Your task to perform on an android device: open app "Walmart Shopping & Grocery" Image 0: 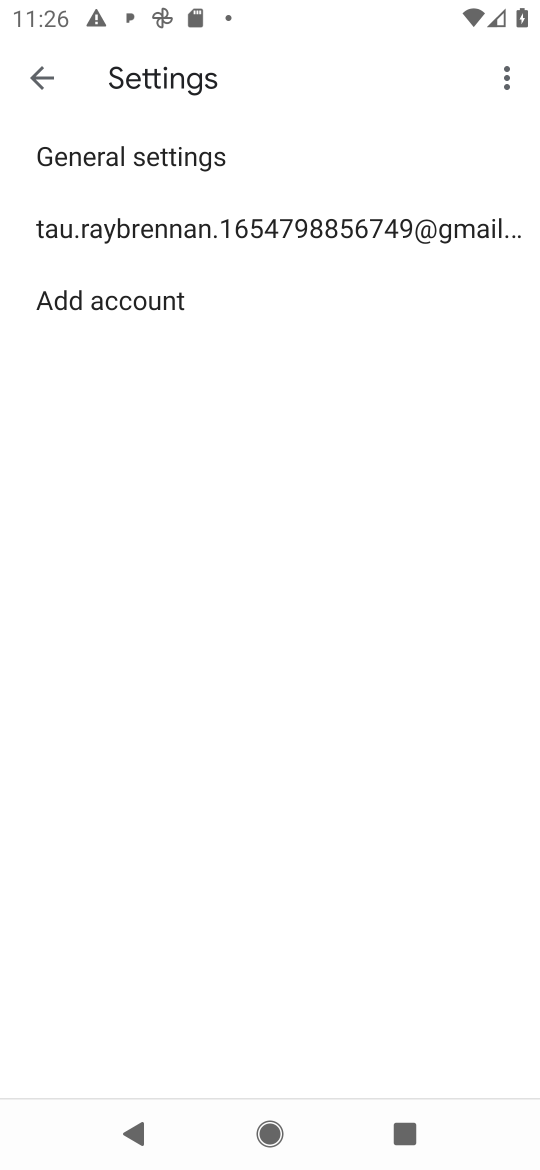
Step 0: press home button
Your task to perform on an android device: open app "Walmart Shopping & Grocery" Image 1: 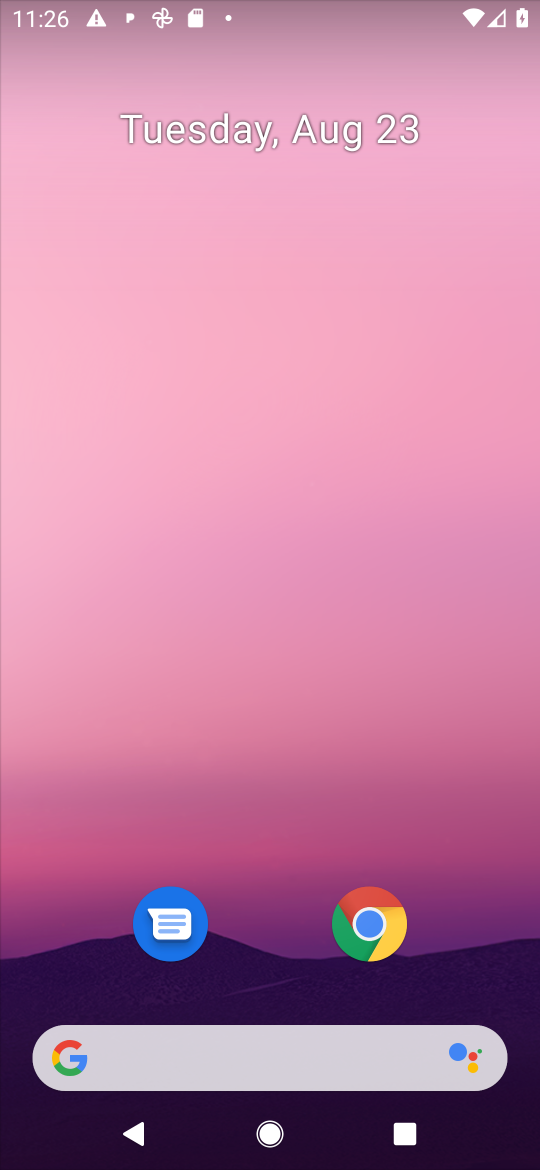
Step 1: drag from (478, 965) to (476, 144)
Your task to perform on an android device: open app "Walmart Shopping & Grocery" Image 2: 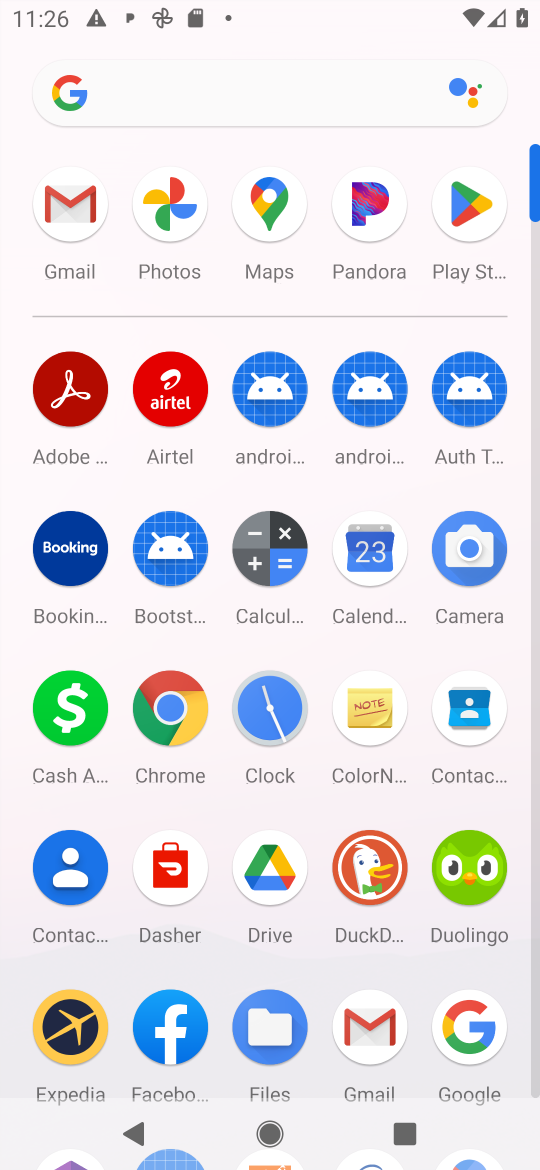
Step 2: click (472, 202)
Your task to perform on an android device: open app "Walmart Shopping & Grocery" Image 3: 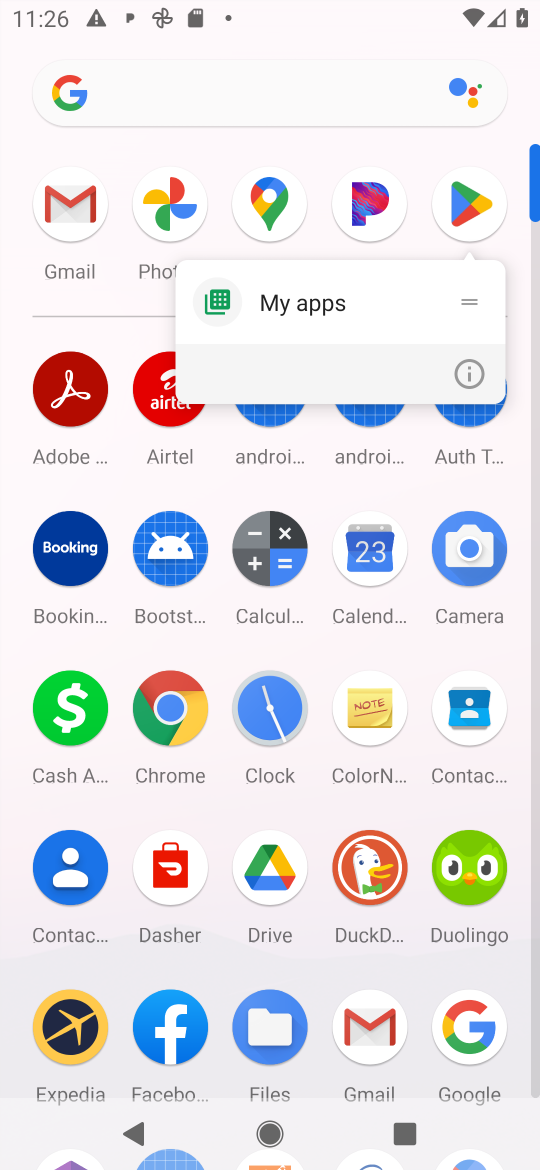
Step 3: click (479, 213)
Your task to perform on an android device: open app "Walmart Shopping & Grocery" Image 4: 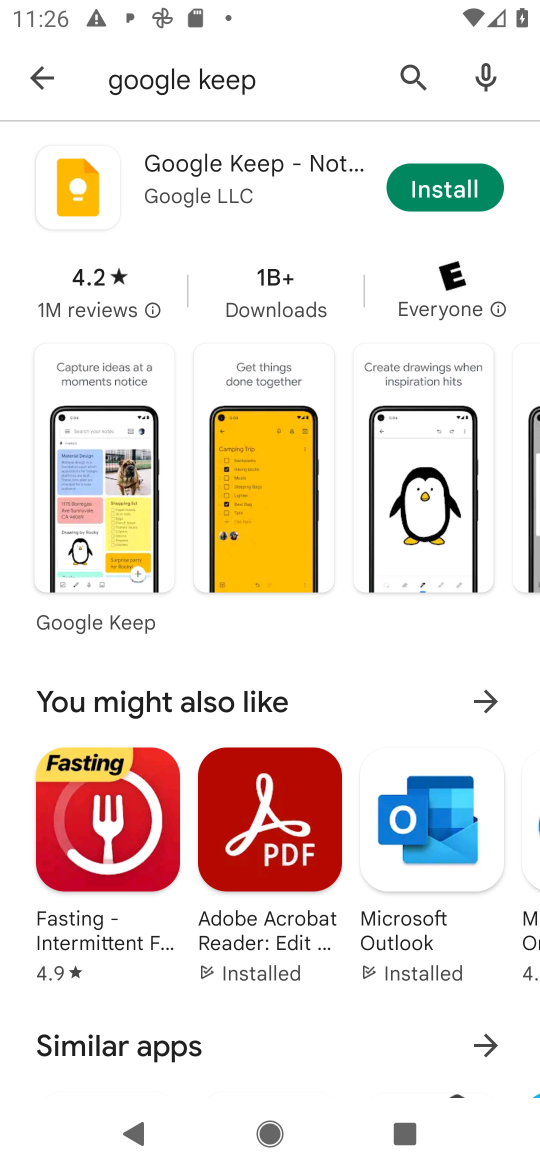
Step 4: press back button
Your task to perform on an android device: open app "Walmart Shopping & Grocery" Image 5: 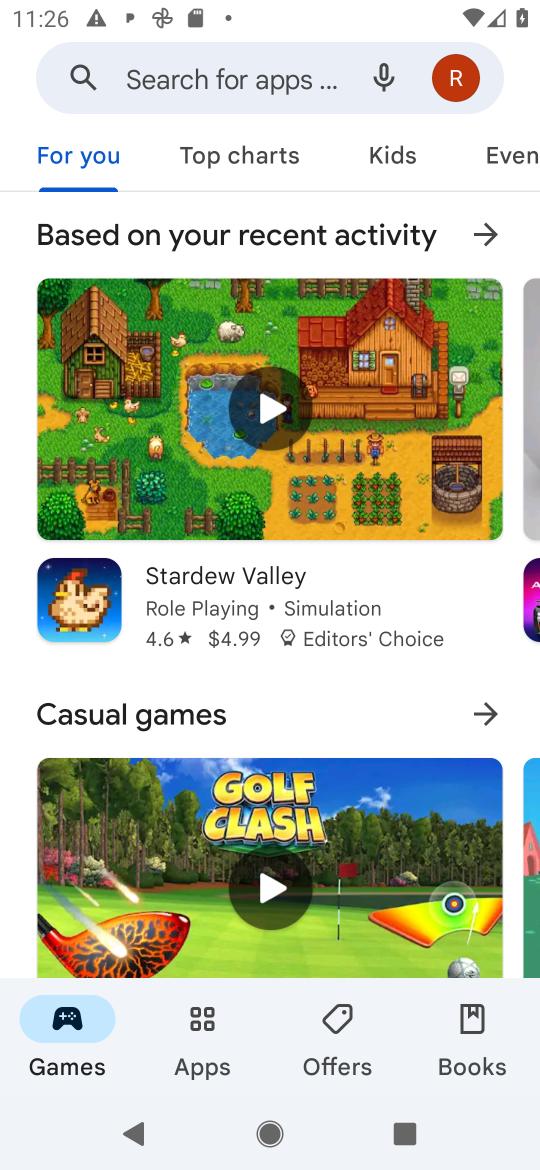
Step 5: click (249, 83)
Your task to perform on an android device: open app "Walmart Shopping & Grocery" Image 6: 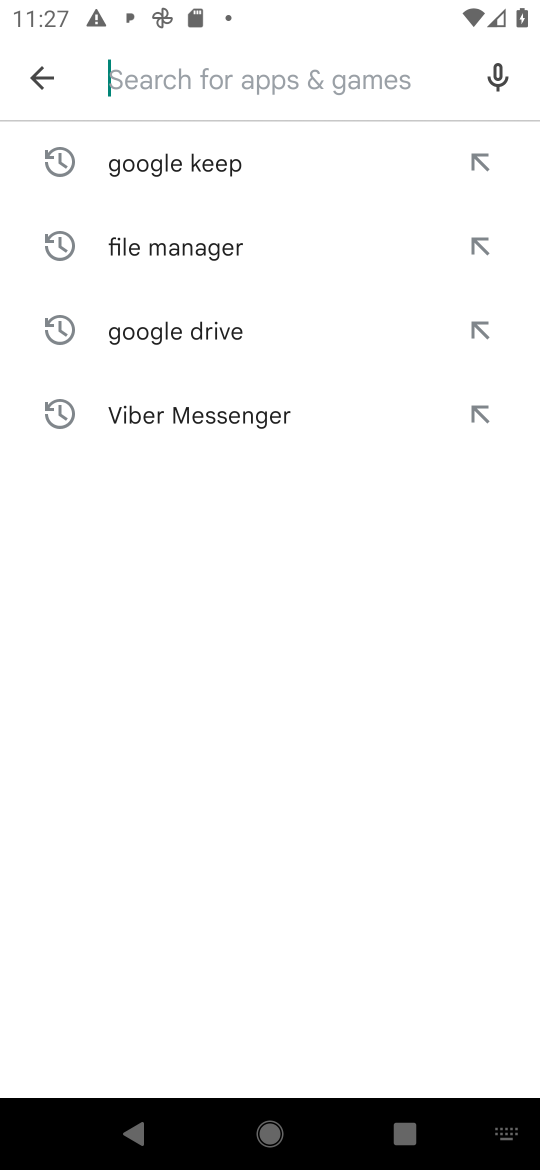
Step 6: type "Walmart Shopping & Grocery"
Your task to perform on an android device: open app "Walmart Shopping & Grocery" Image 7: 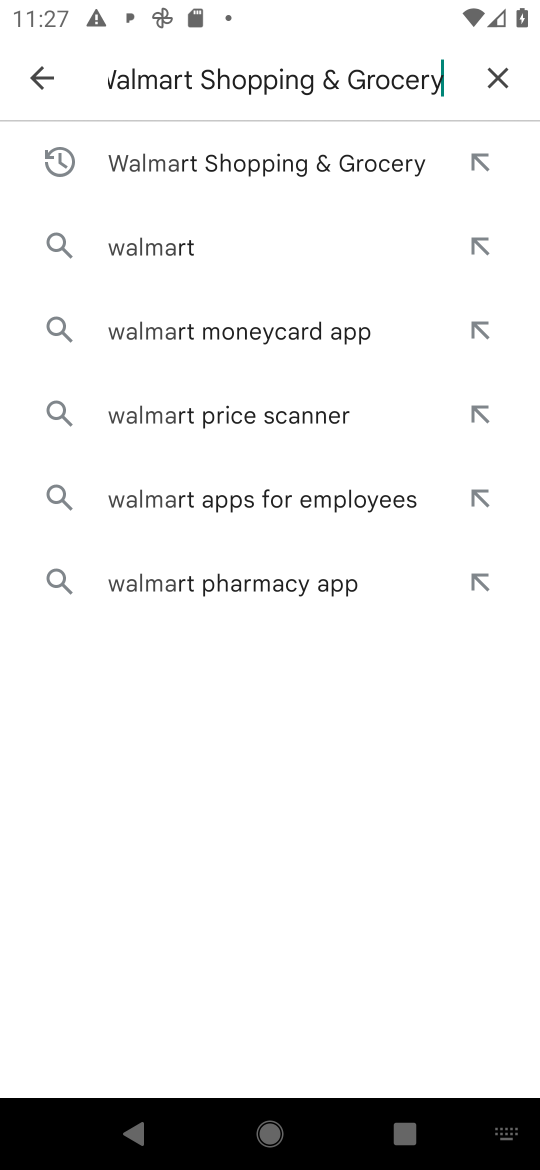
Step 7: press enter
Your task to perform on an android device: open app "Walmart Shopping & Grocery" Image 8: 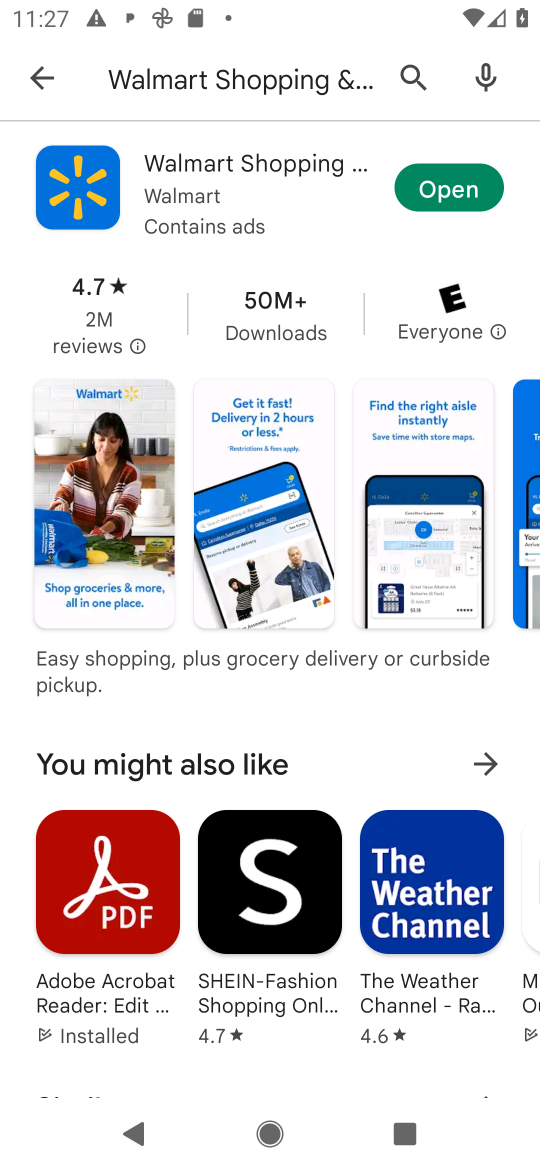
Step 8: click (460, 182)
Your task to perform on an android device: open app "Walmart Shopping & Grocery" Image 9: 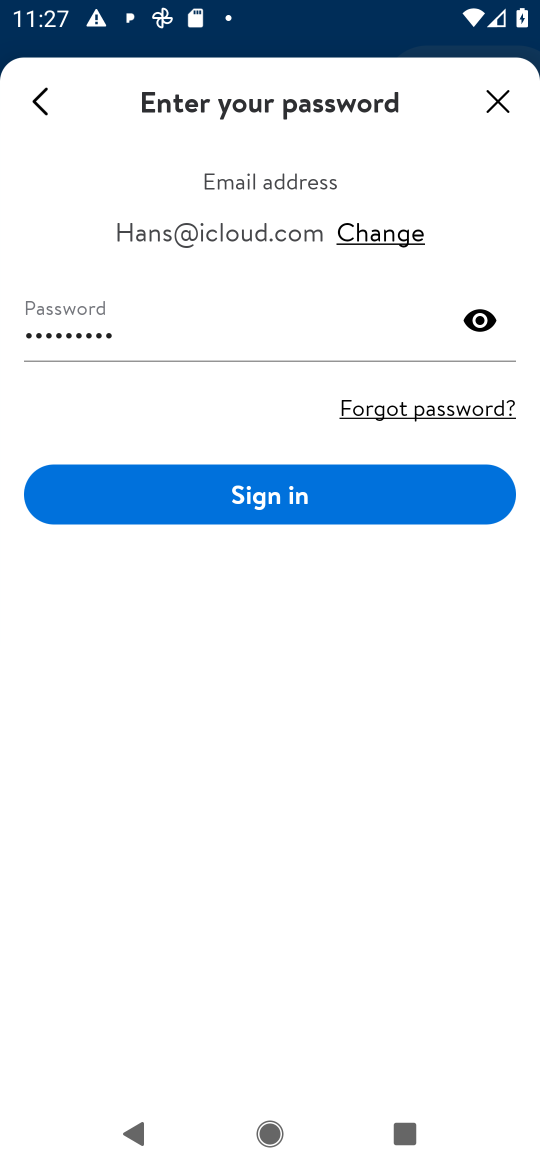
Step 9: task complete